Your task to perform on an android device: Open battery settings Image 0: 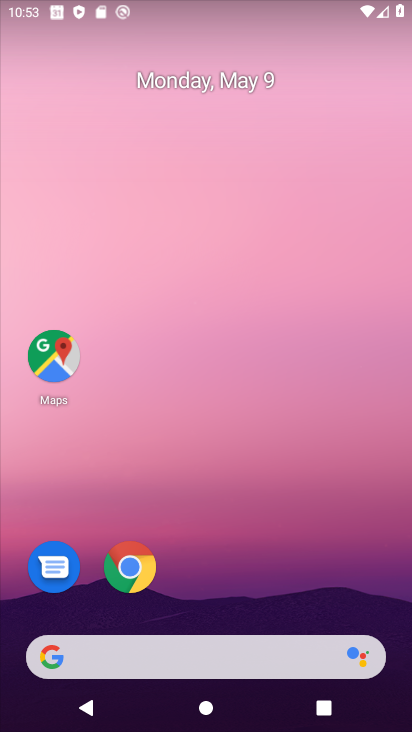
Step 0: drag from (376, 597) to (256, 133)
Your task to perform on an android device: Open battery settings Image 1: 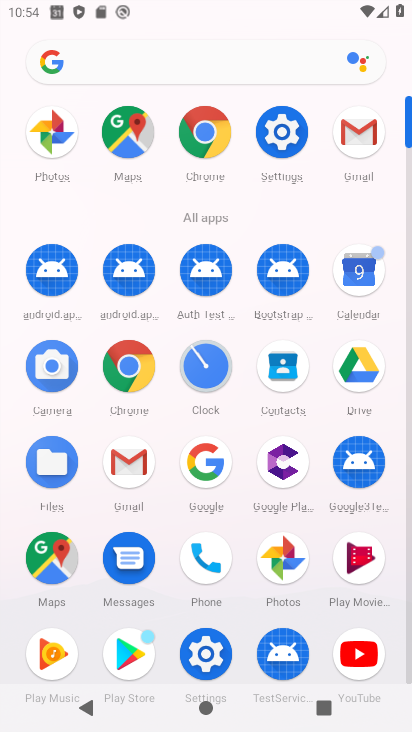
Step 1: click (214, 662)
Your task to perform on an android device: Open battery settings Image 2: 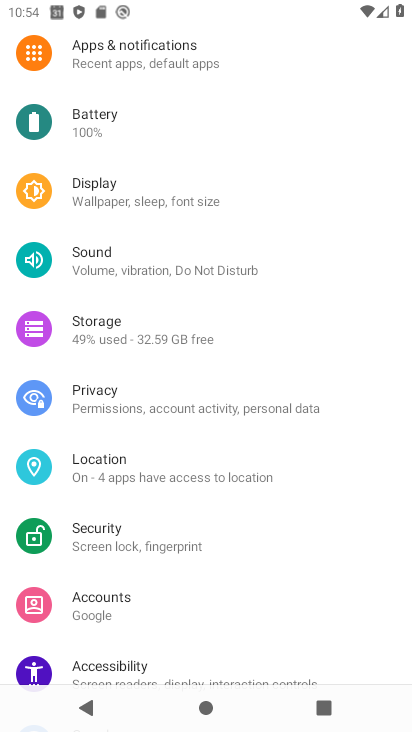
Step 2: click (103, 135)
Your task to perform on an android device: Open battery settings Image 3: 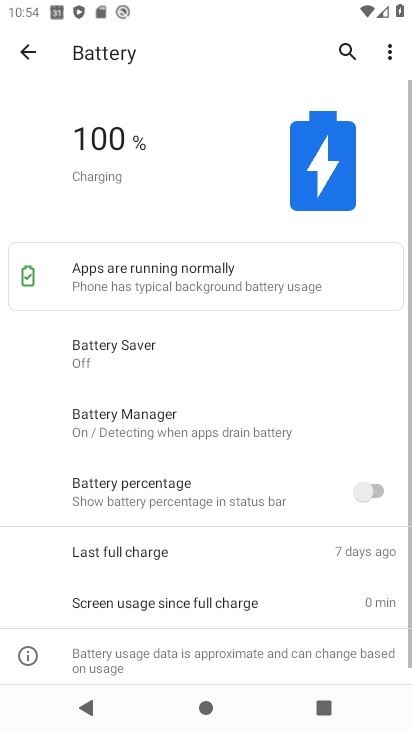
Step 3: task complete